Your task to perform on an android device: Open maps Image 0: 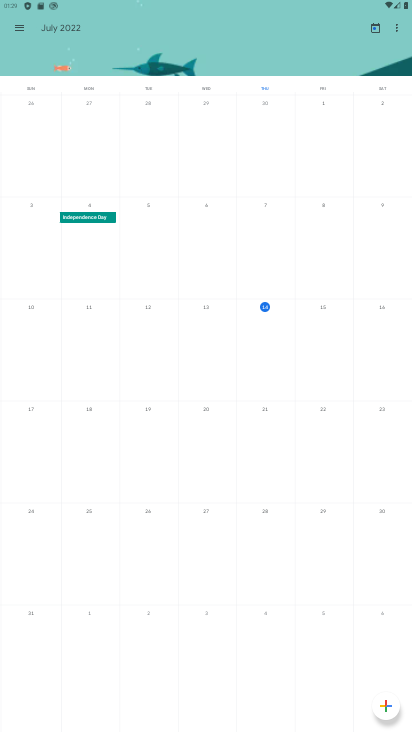
Step 0: press home button
Your task to perform on an android device: Open maps Image 1: 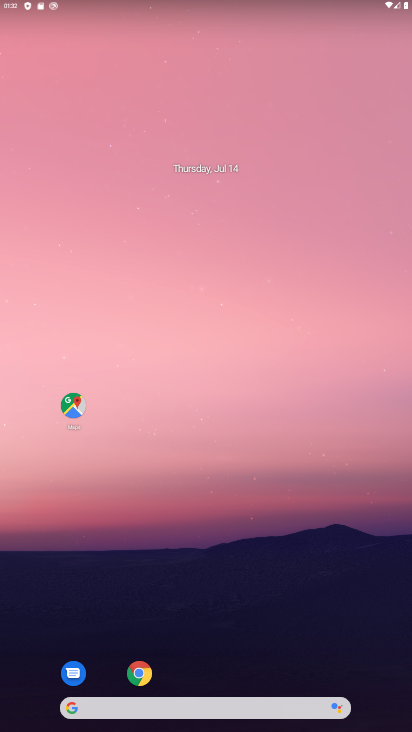
Step 1: click (73, 396)
Your task to perform on an android device: Open maps Image 2: 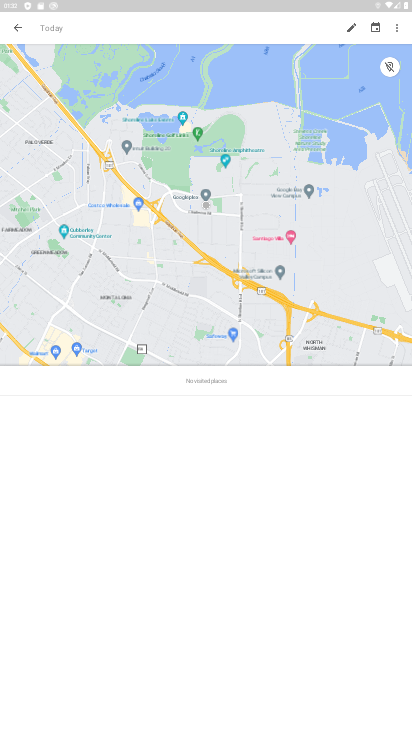
Step 2: task complete